Your task to perform on an android device: Open the phone app and click the voicemail tab. Image 0: 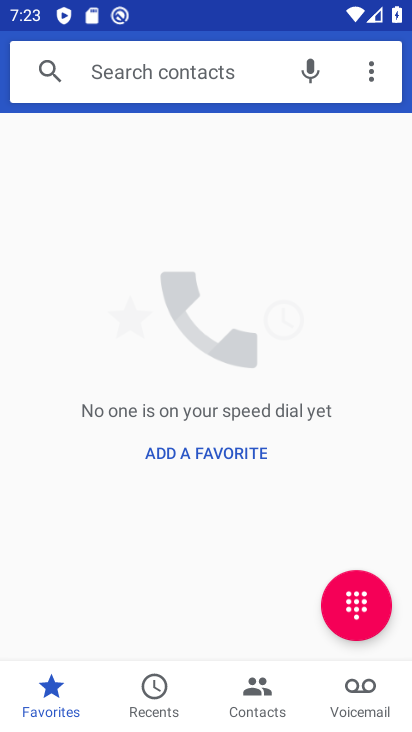
Step 0: press home button
Your task to perform on an android device: Open the phone app and click the voicemail tab. Image 1: 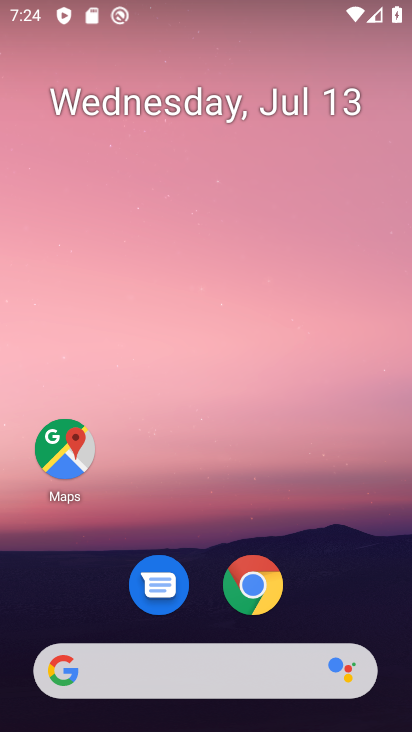
Step 1: drag from (217, 687) to (251, 293)
Your task to perform on an android device: Open the phone app and click the voicemail tab. Image 2: 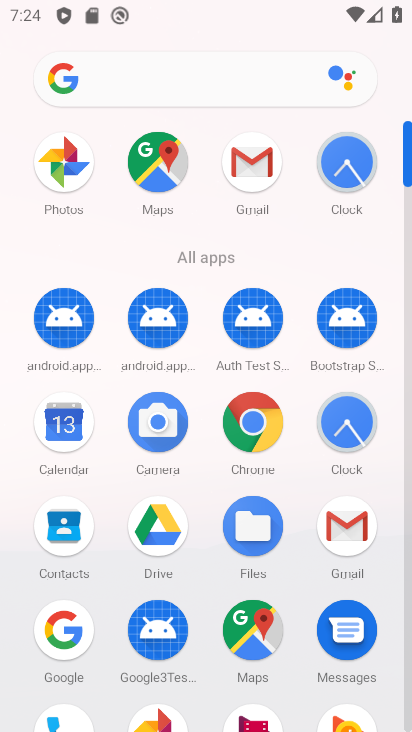
Step 2: drag from (187, 508) to (226, 173)
Your task to perform on an android device: Open the phone app and click the voicemail tab. Image 3: 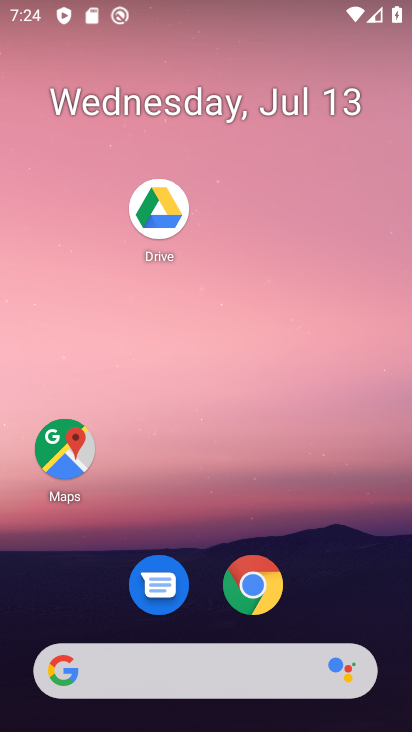
Step 3: drag from (220, 587) to (307, 64)
Your task to perform on an android device: Open the phone app and click the voicemail tab. Image 4: 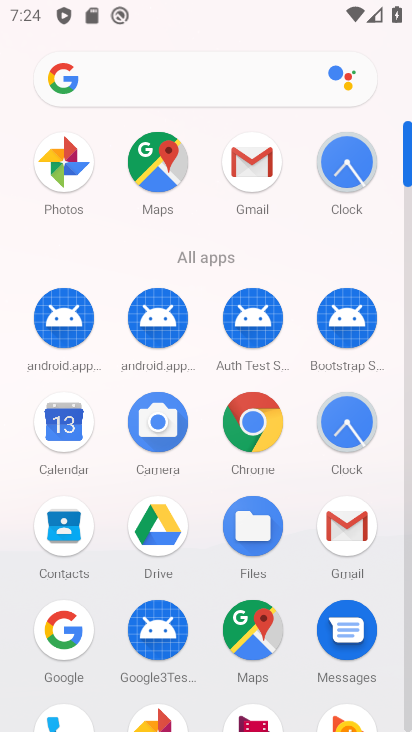
Step 4: drag from (181, 591) to (253, 108)
Your task to perform on an android device: Open the phone app and click the voicemail tab. Image 5: 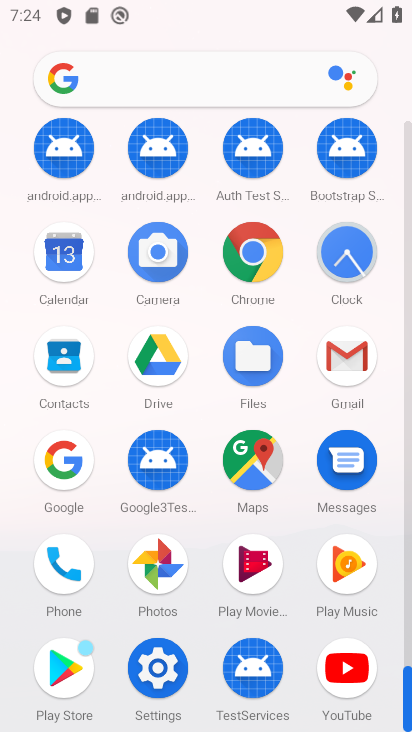
Step 5: click (65, 560)
Your task to perform on an android device: Open the phone app and click the voicemail tab. Image 6: 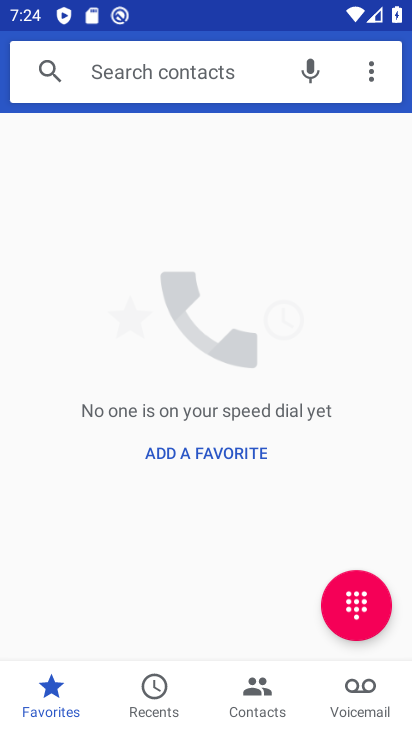
Step 6: click (374, 701)
Your task to perform on an android device: Open the phone app and click the voicemail tab. Image 7: 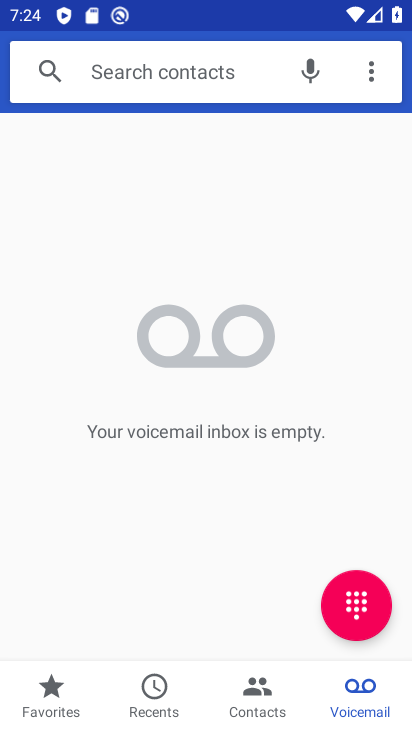
Step 7: task complete